Your task to perform on an android device: turn on improve location accuracy Image 0: 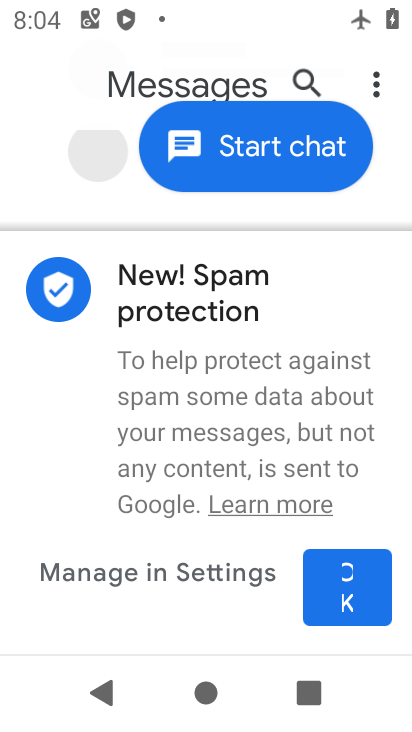
Step 0: press home button
Your task to perform on an android device: turn on improve location accuracy Image 1: 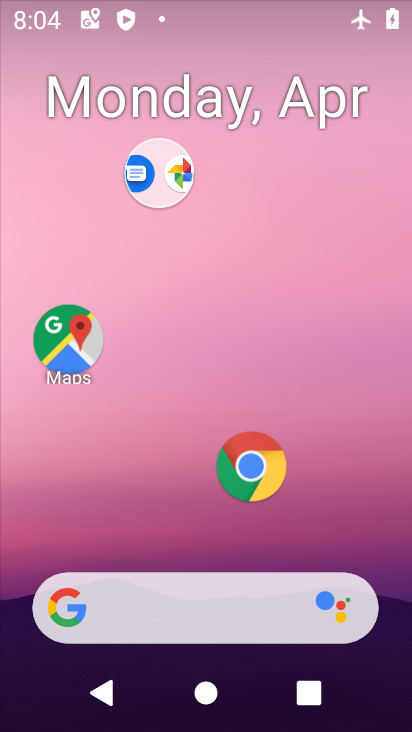
Step 1: drag from (186, 534) to (231, 98)
Your task to perform on an android device: turn on improve location accuracy Image 2: 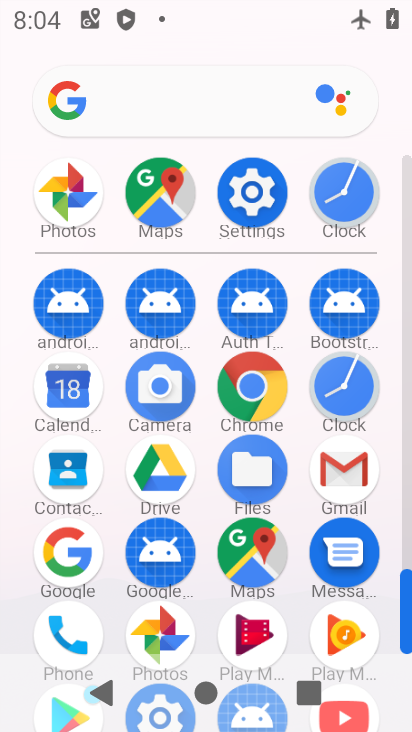
Step 2: click (261, 185)
Your task to perform on an android device: turn on improve location accuracy Image 3: 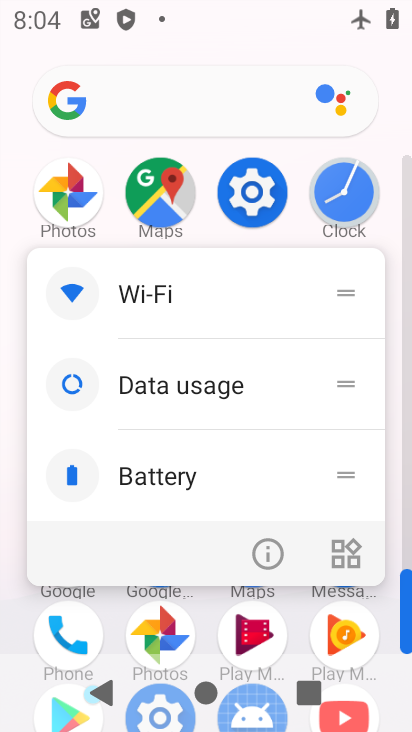
Step 3: click (265, 547)
Your task to perform on an android device: turn on improve location accuracy Image 4: 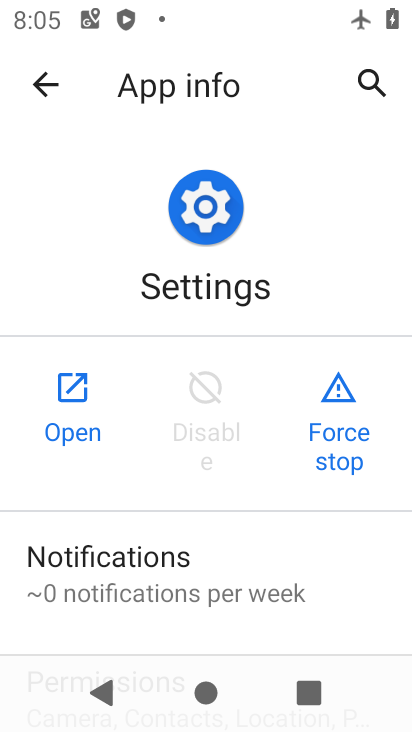
Step 4: click (62, 382)
Your task to perform on an android device: turn on improve location accuracy Image 5: 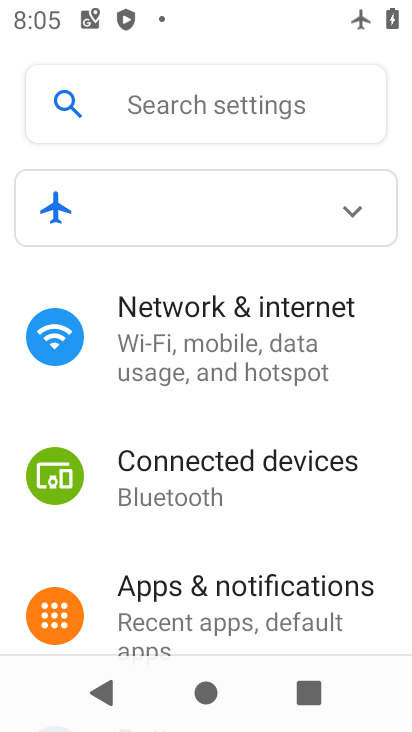
Step 5: drag from (248, 554) to (270, 252)
Your task to perform on an android device: turn on improve location accuracy Image 6: 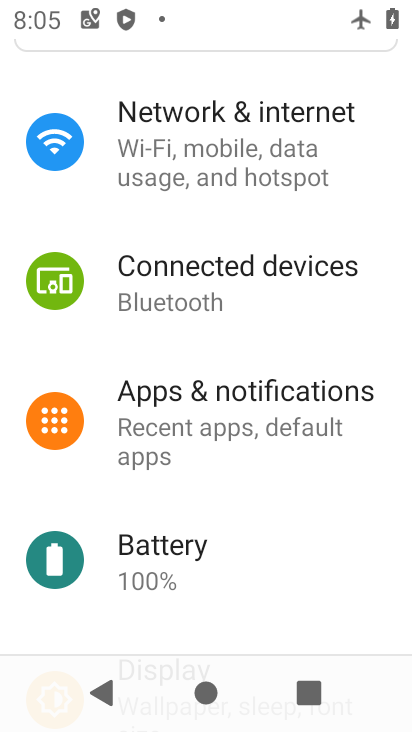
Step 6: drag from (235, 526) to (252, 282)
Your task to perform on an android device: turn on improve location accuracy Image 7: 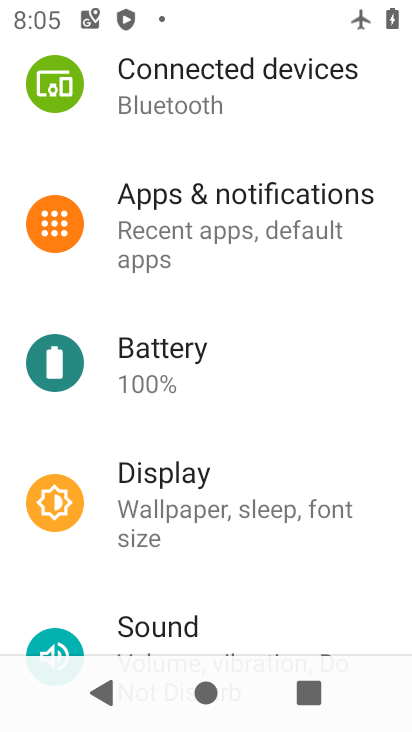
Step 7: drag from (261, 543) to (267, 122)
Your task to perform on an android device: turn on improve location accuracy Image 8: 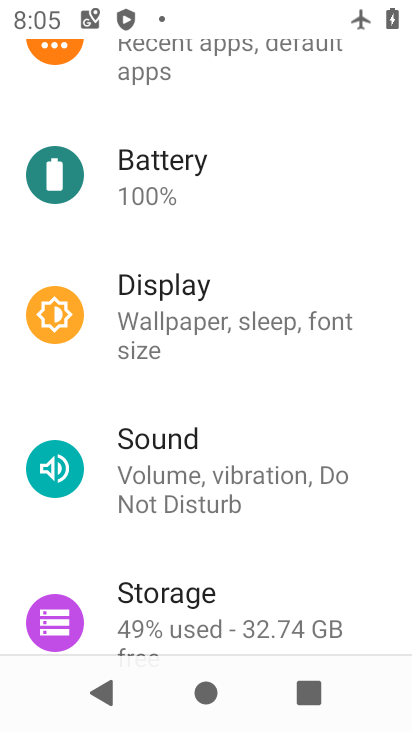
Step 8: drag from (232, 538) to (226, 155)
Your task to perform on an android device: turn on improve location accuracy Image 9: 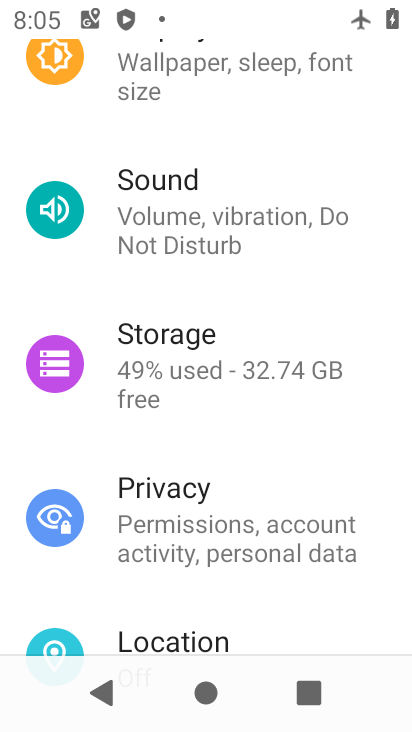
Step 9: click (199, 630)
Your task to perform on an android device: turn on improve location accuracy Image 10: 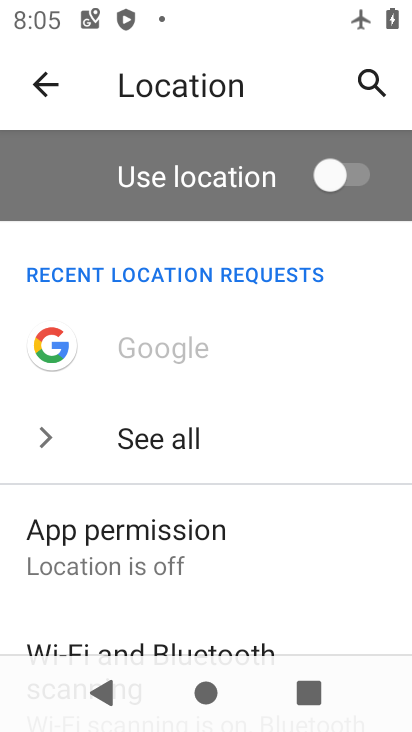
Step 10: click (314, 164)
Your task to perform on an android device: turn on improve location accuracy Image 11: 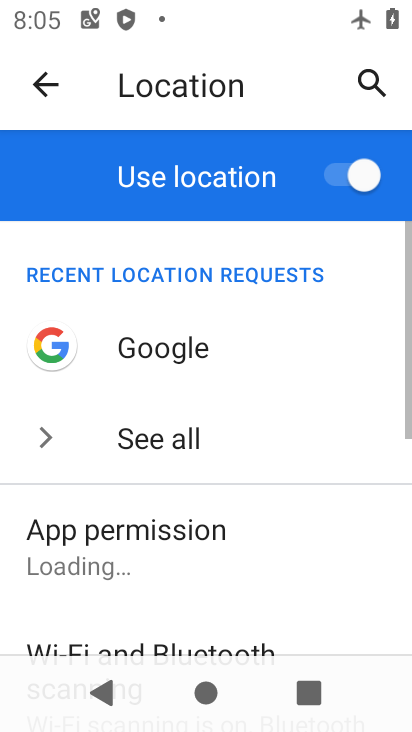
Step 11: click (322, 162)
Your task to perform on an android device: turn on improve location accuracy Image 12: 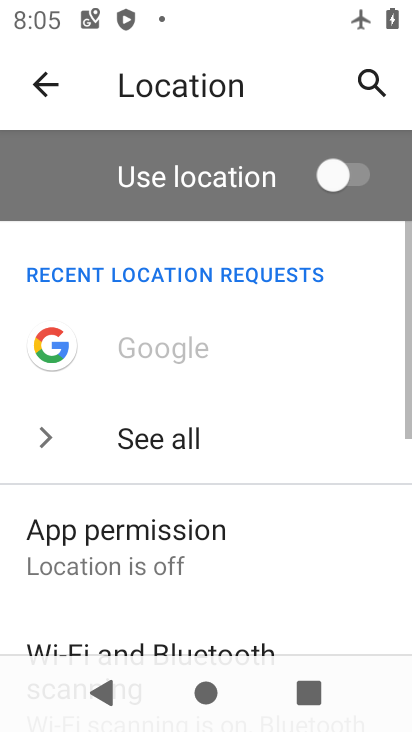
Step 12: drag from (143, 608) to (223, 149)
Your task to perform on an android device: turn on improve location accuracy Image 13: 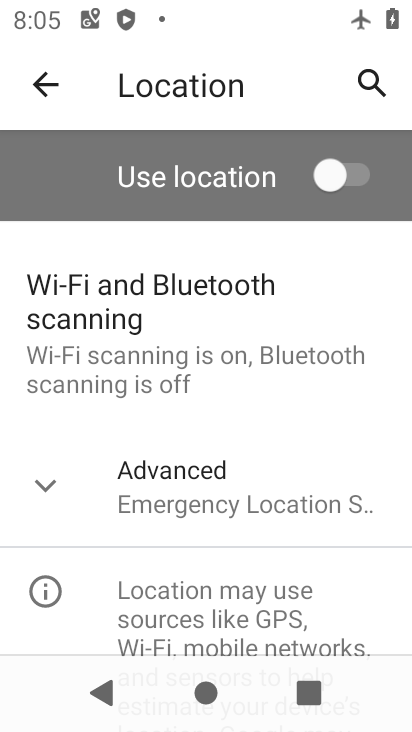
Step 13: click (169, 496)
Your task to perform on an android device: turn on improve location accuracy Image 14: 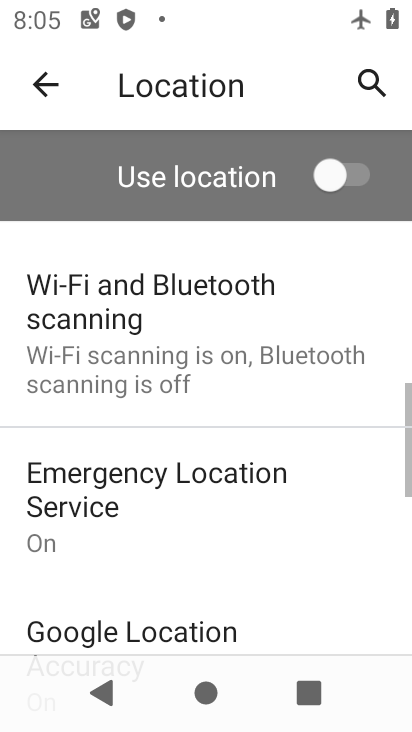
Step 14: drag from (233, 493) to (252, 250)
Your task to perform on an android device: turn on improve location accuracy Image 15: 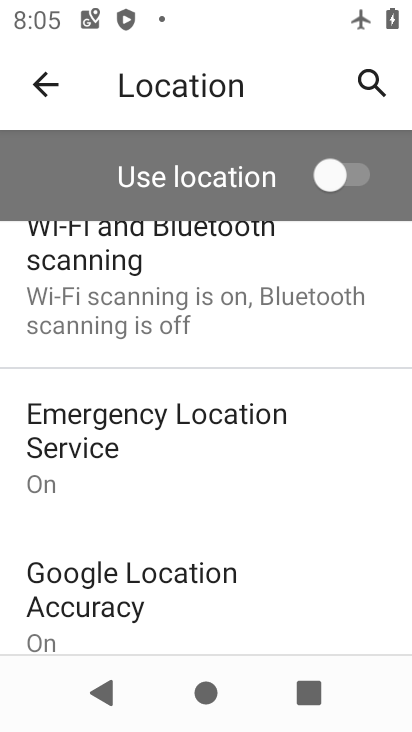
Step 15: click (161, 580)
Your task to perform on an android device: turn on improve location accuracy Image 16: 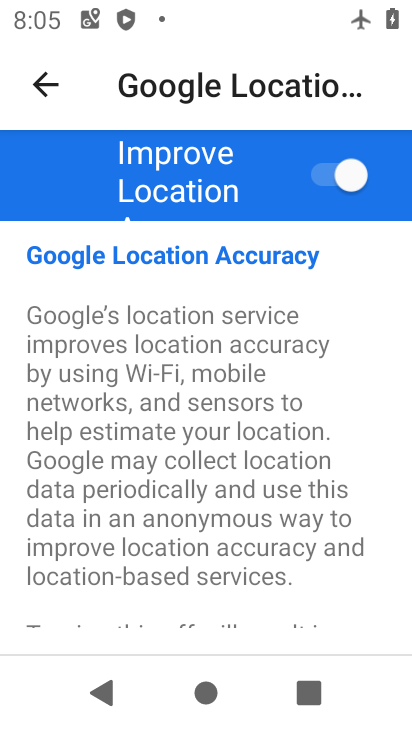
Step 16: task complete